Your task to perform on an android device: turn off notifications in google photos Image 0: 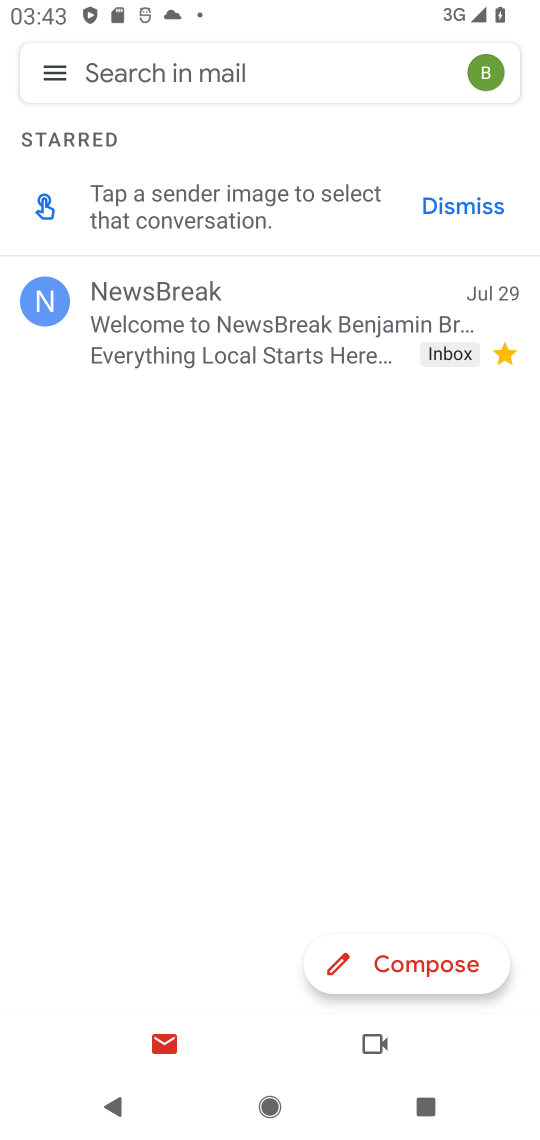
Step 0: press home button
Your task to perform on an android device: turn off notifications in google photos Image 1: 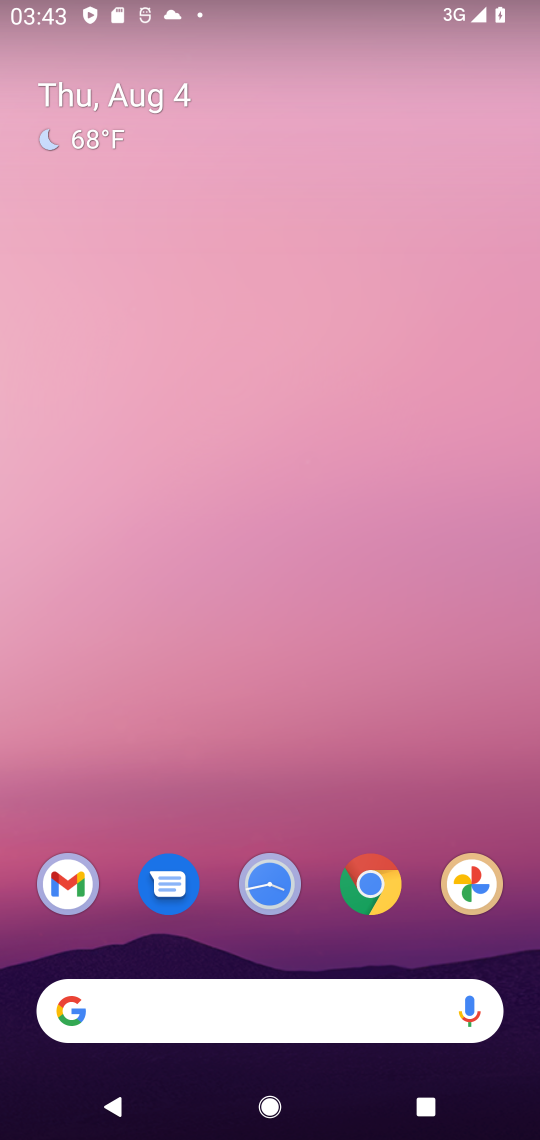
Step 1: drag from (310, 844) to (351, 412)
Your task to perform on an android device: turn off notifications in google photos Image 2: 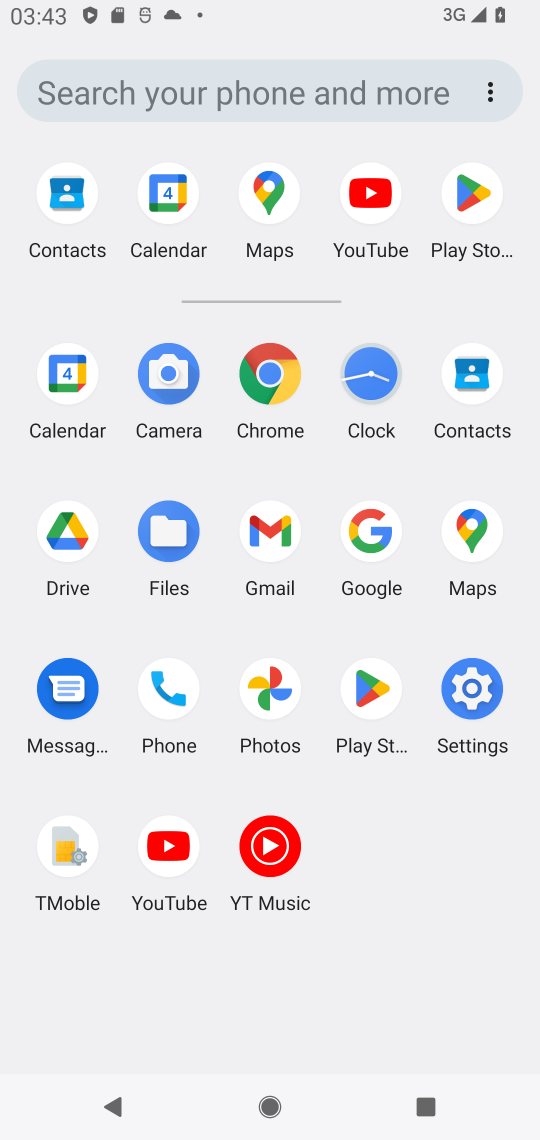
Step 2: click (268, 704)
Your task to perform on an android device: turn off notifications in google photos Image 3: 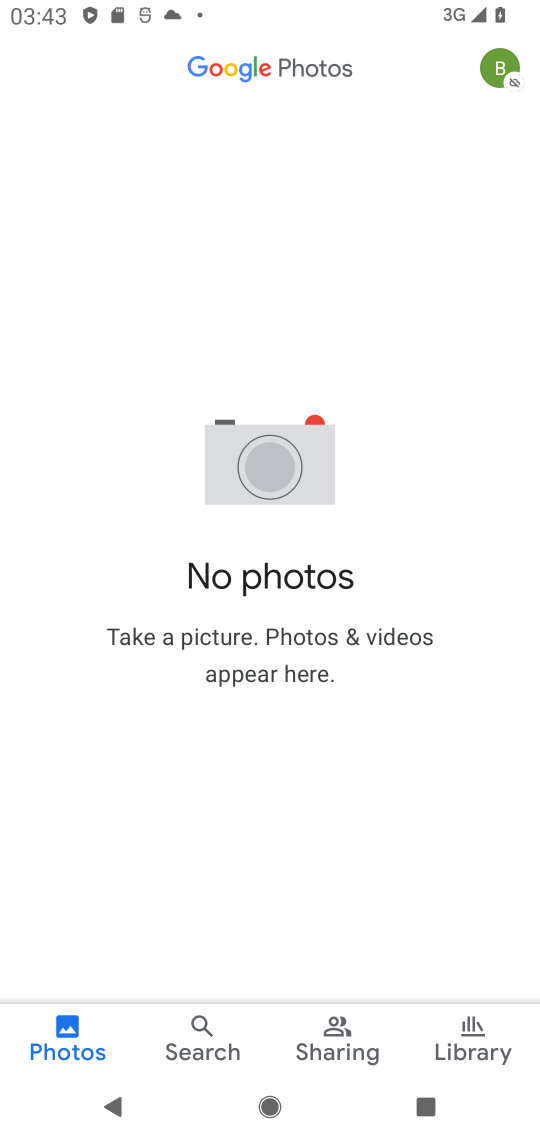
Step 3: click (503, 67)
Your task to perform on an android device: turn off notifications in google photos Image 4: 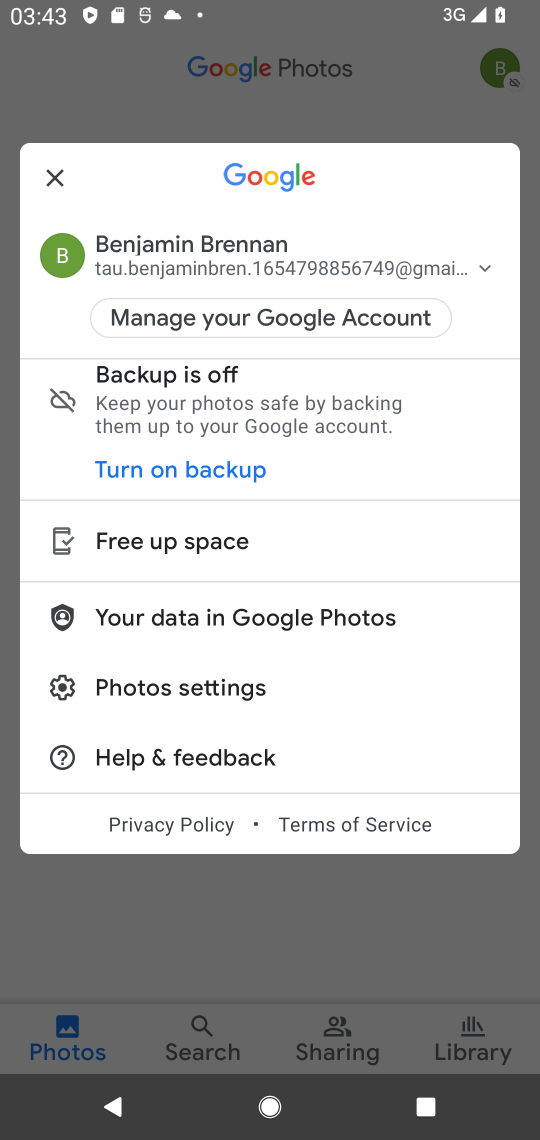
Step 4: click (263, 694)
Your task to perform on an android device: turn off notifications in google photos Image 5: 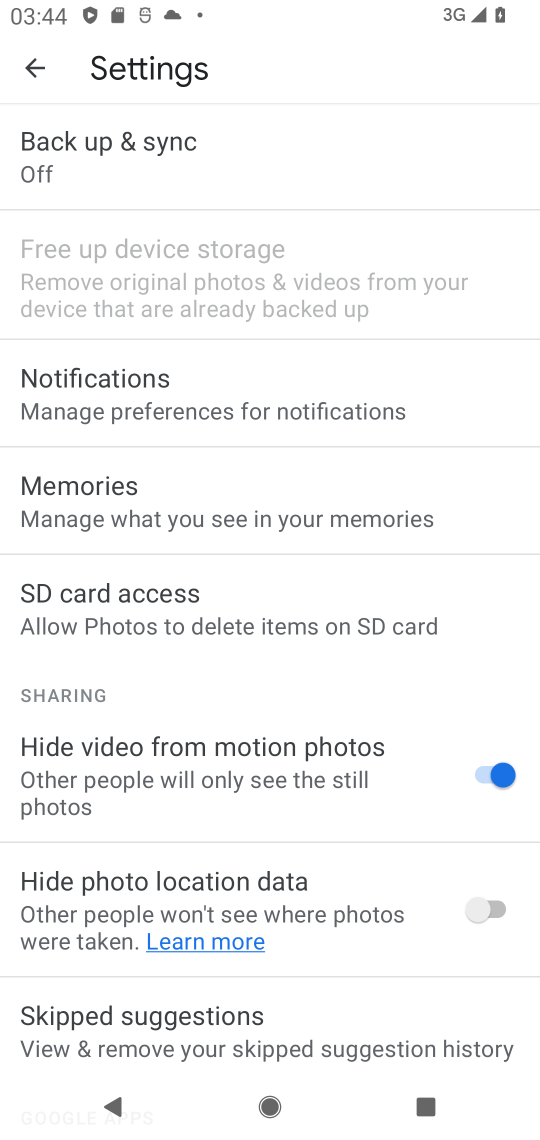
Step 5: click (247, 404)
Your task to perform on an android device: turn off notifications in google photos Image 6: 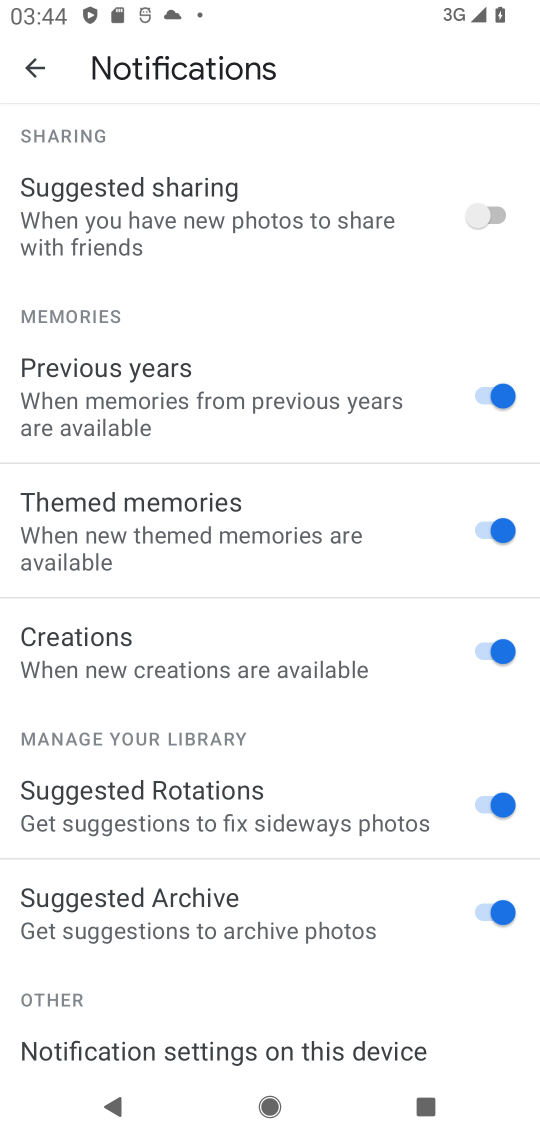
Step 6: drag from (314, 948) to (345, 771)
Your task to perform on an android device: turn off notifications in google photos Image 7: 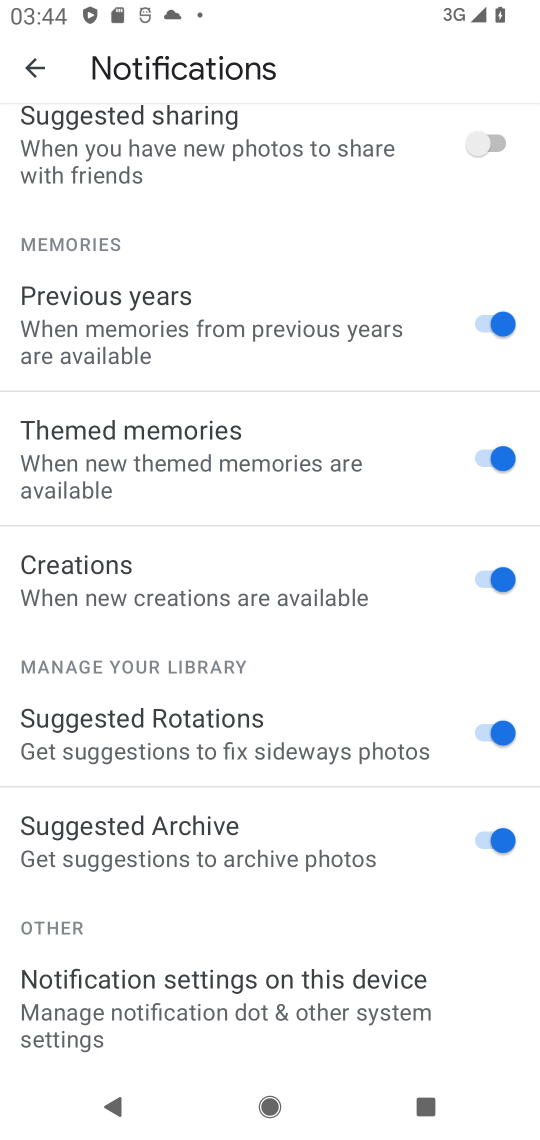
Step 7: click (362, 988)
Your task to perform on an android device: turn off notifications in google photos Image 8: 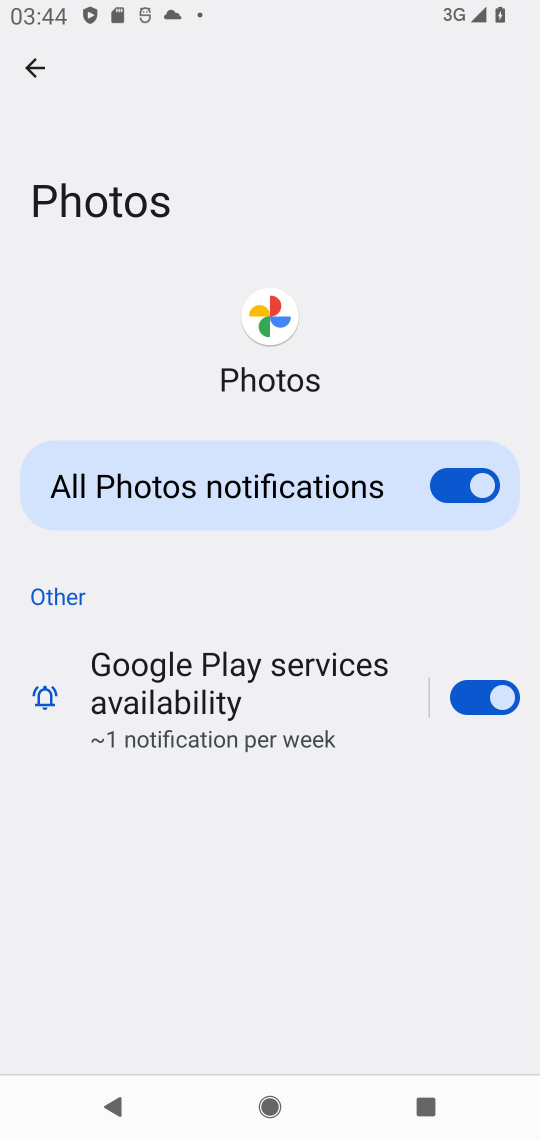
Step 8: click (464, 483)
Your task to perform on an android device: turn off notifications in google photos Image 9: 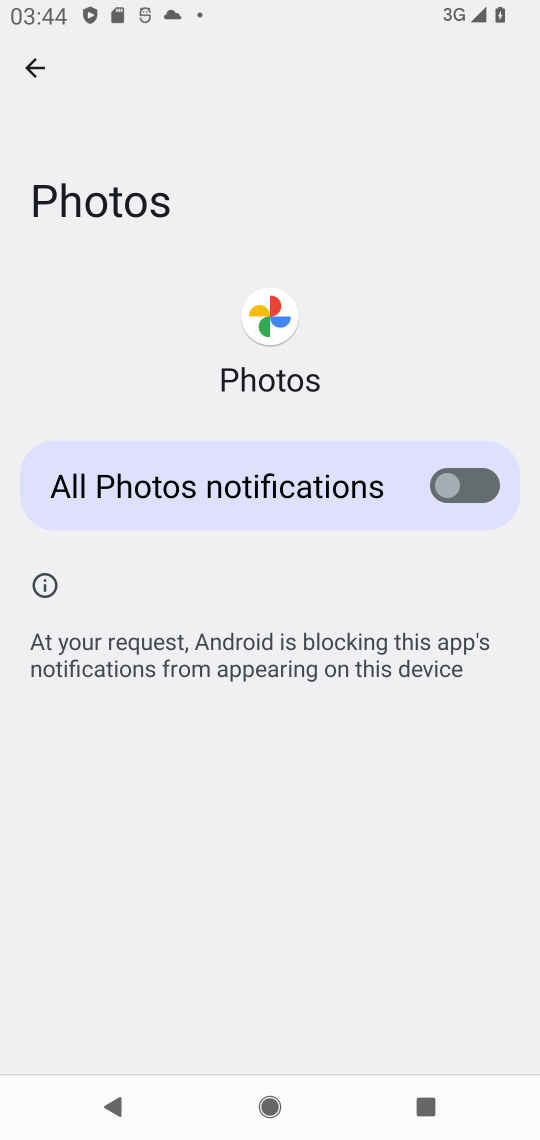
Step 9: task complete